Your task to perform on an android device: set default search engine in the chrome app Image 0: 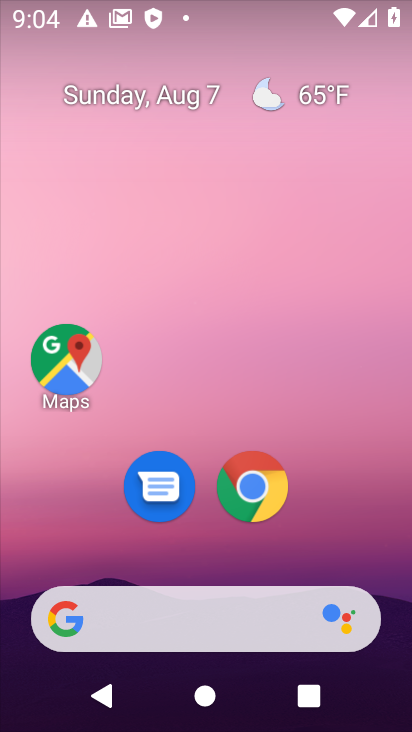
Step 0: click (255, 491)
Your task to perform on an android device: set default search engine in the chrome app Image 1: 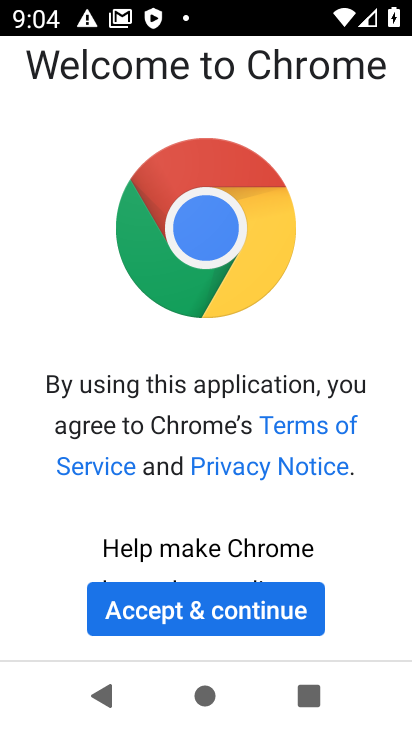
Step 1: click (260, 613)
Your task to perform on an android device: set default search engine in the chrome app Image 2: 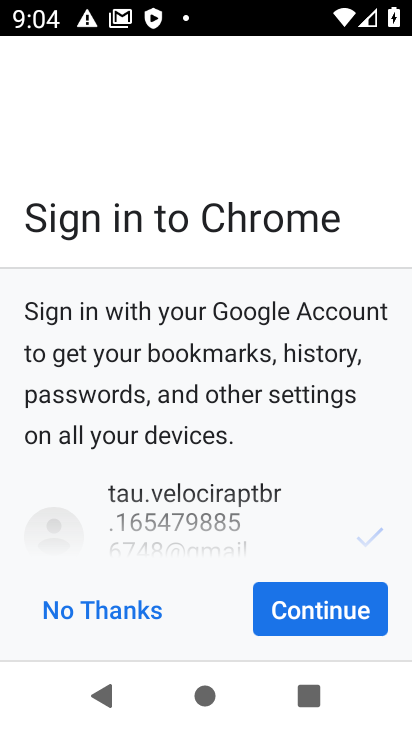
Step 2: click (334, 609)
Your task to perform on an android device: set default search engine in the chrome app Image 3: 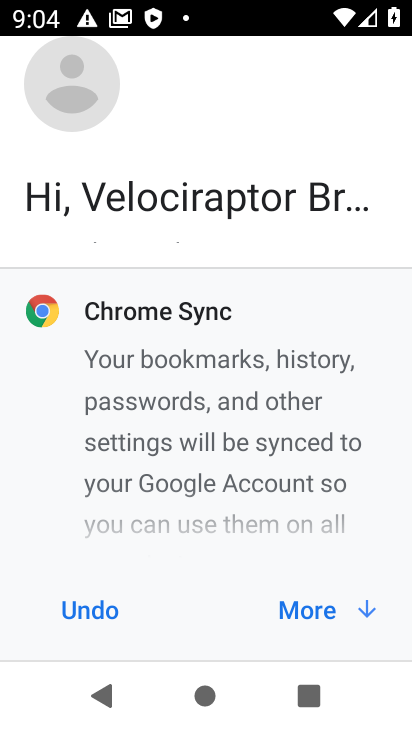
Step 3: click (334, 609)
Your task to perform on an android device: set default search engine in the chrome app Image 4: 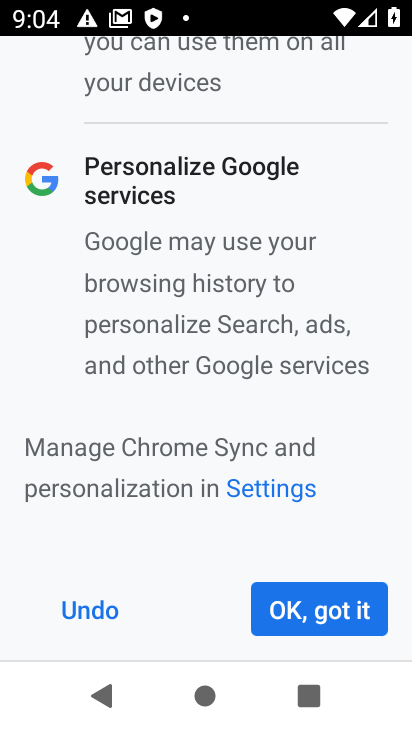
Step 4: click (334, 609)
Your task to perform on an android device: set default search engine in the chrome app Image 5: 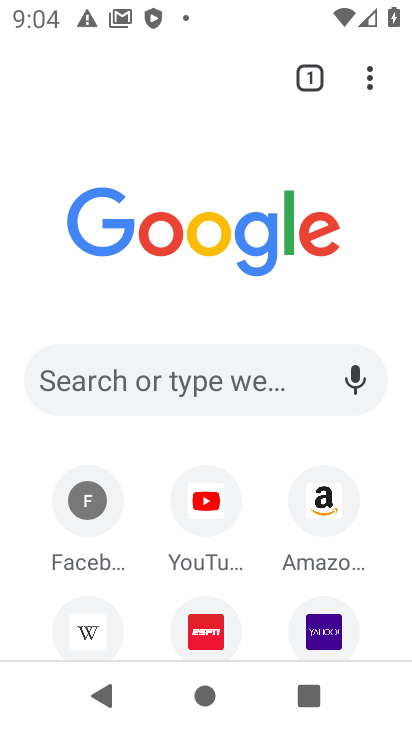
Step 5: click (378, 78)
Your task to perform on an android device: set default search engine in the chrome app Image 6: 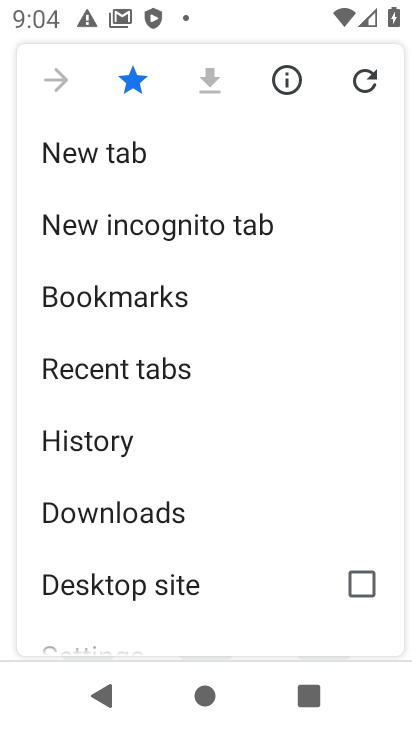
Step 6: drag from (155, 567) to (145, 246)
Your task to perform on an android device: set default search engine in the chrome app Image 7: 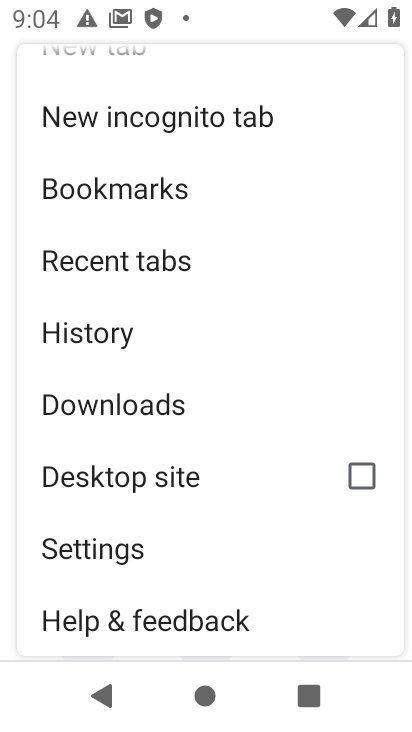
Step 7: click (154, 563)
Your task to perform on an android device: set default search engine in the chrome app Image 8: 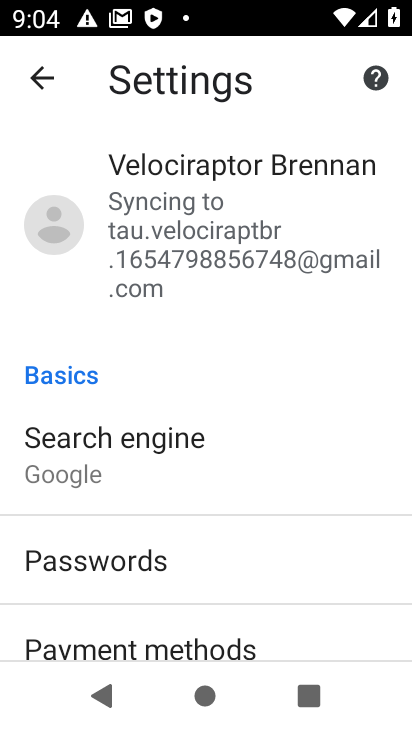
Step 8: click (141, 447)
Your task to perform on an android device: set default search engine in the chrome app Image 9: 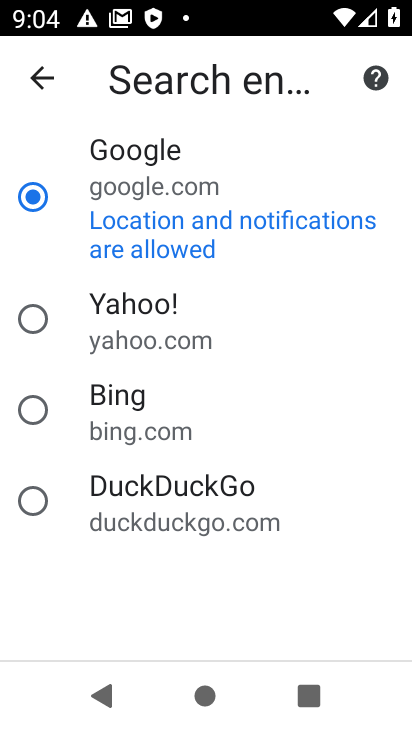
Step 9: click (153, 301)
Your task to perform on an android device: set default search engine in the chrome app Image 10: 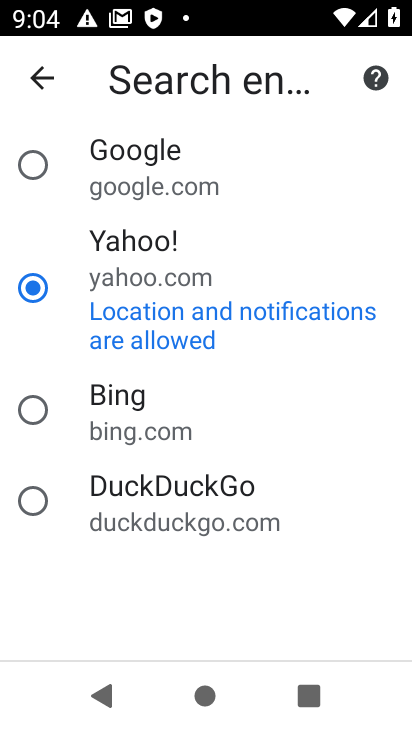
Step 10: task complete